Your task to perform on an android device: Do I have any events tomorrow? Image 0: 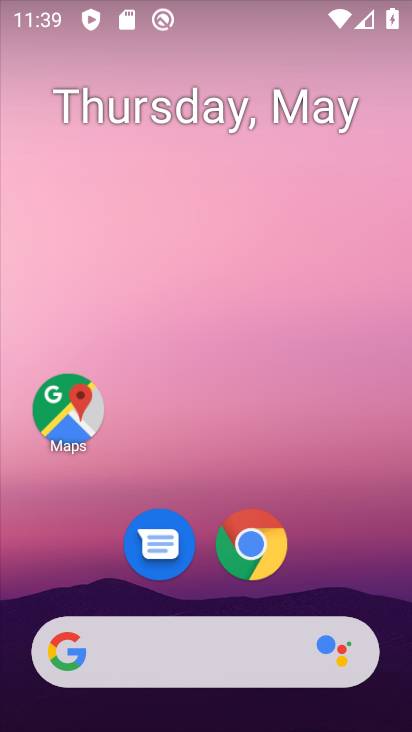
Step 0: drag from (216, 610) to (226, 204)
Your task to perform on an android device: Do I have any events tomorrow? Image 1: 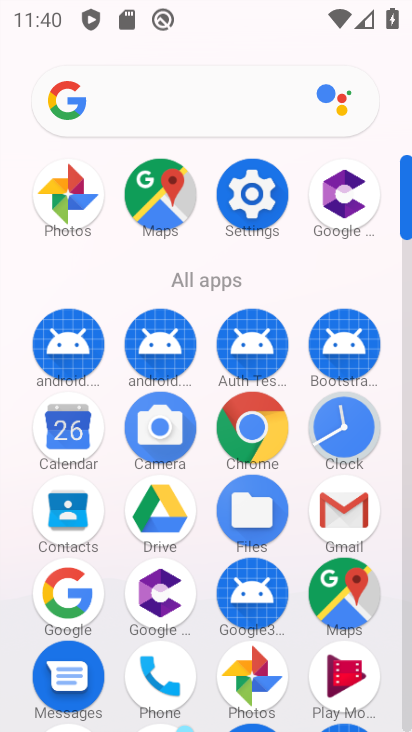
Step 1: click (83, 439)
Your task to perform on an android device: Do I have any events tomorrow? Image 2: 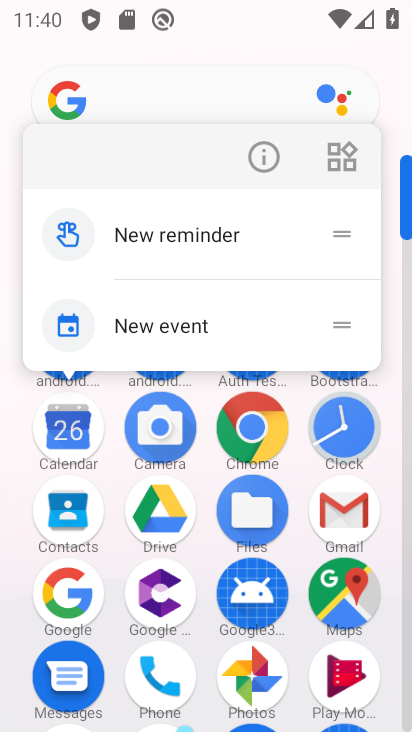
Step 2: click (279, 158)
Your task to perform on an android device: Do I have any events tomorrow? Image 3: 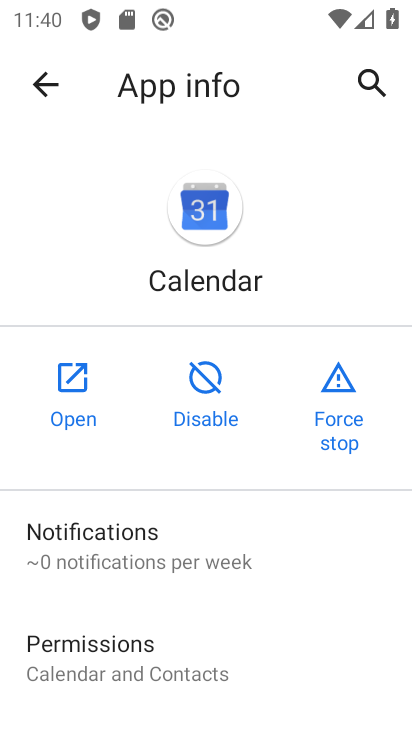
Step 3: click (65, 391)
Your task to perform on an android device: Do I have any events tomorrow? Image 4: 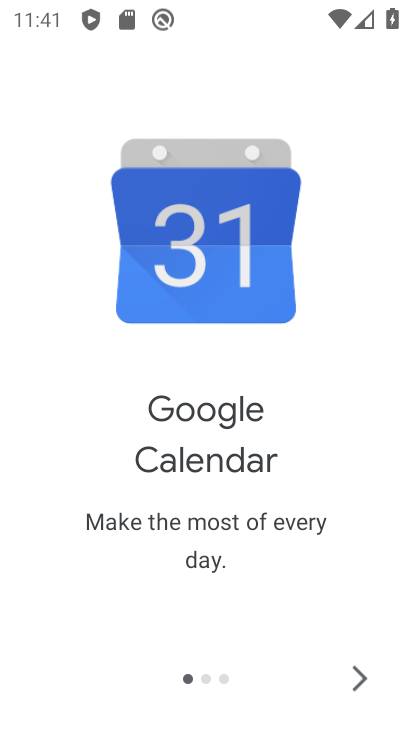
Step 4: click (344, 662)
Your task to perform on an android device: Do I have any events tomorrow? Image 5: 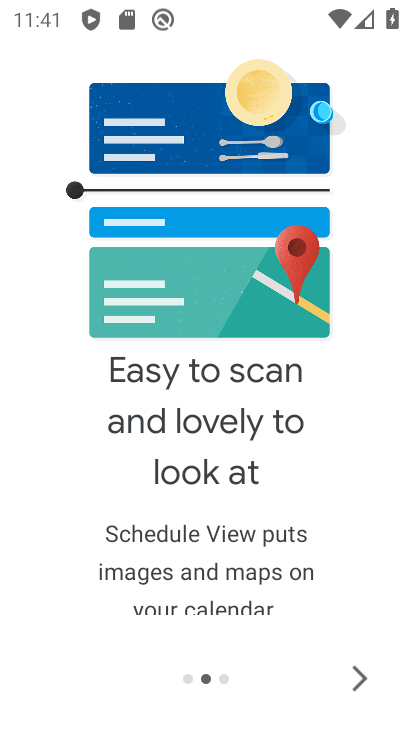
Step 5: click (347, 669)
Your task to perform on an android device: Do I have any events tomorrow? Image 6: 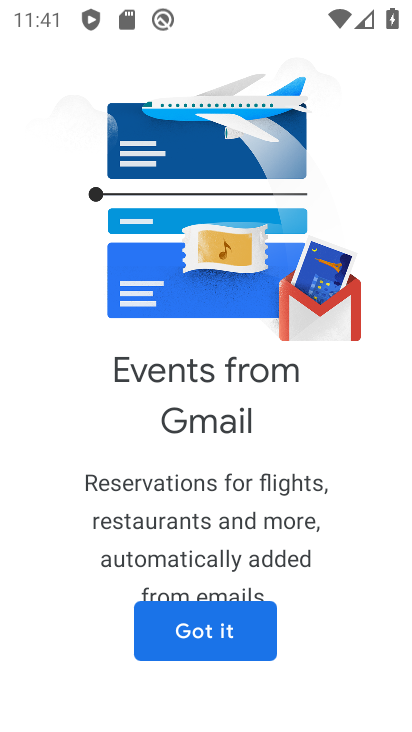
Step 6: click (219, 649)
Your task to perform on an android device: Do I have any events tomorrow? Image 7: 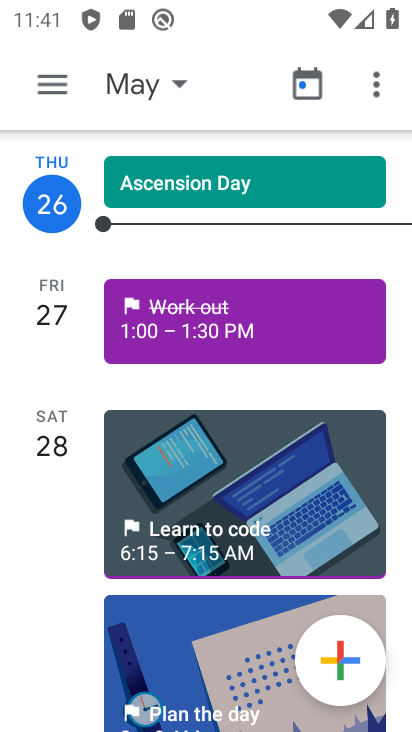
Step 7: click (147, 76)
Your task to perform on an android device: Do I have any events tomorrow? Image 8: 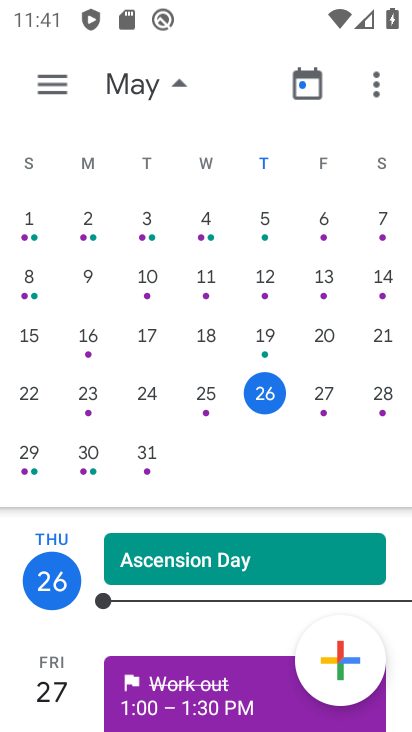
Step 8: click (313, 404)
Your task to perform on an android device: Do I have any events tomorrow? Image 9: 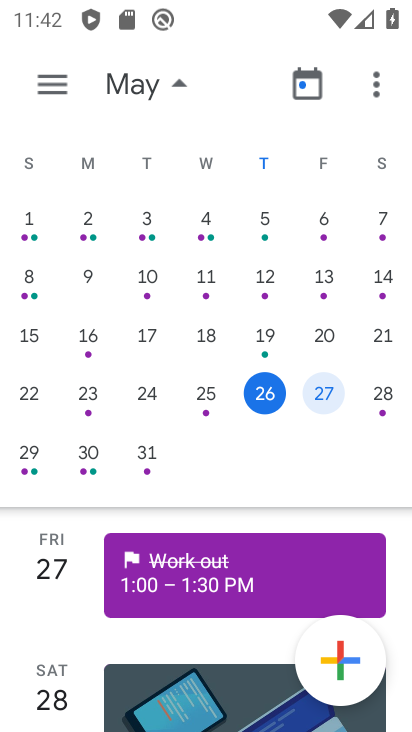
Step 9: click (343, 402)
Your task to perform on an android device: Do I have any events tomorrow? Image 10: 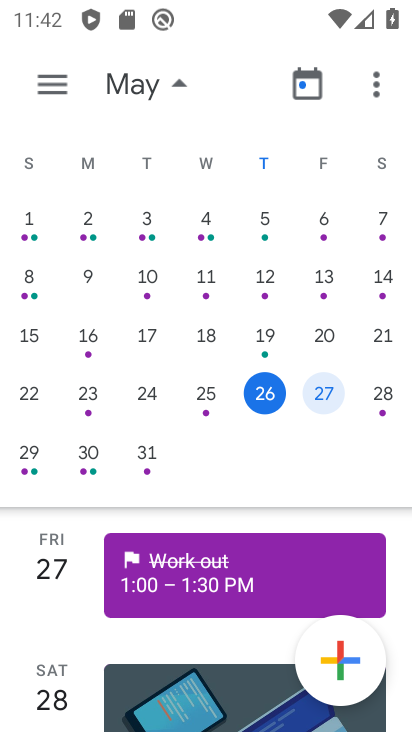
Step 10: task complete